Your task to perform on an android device: Open network settings Image 0: 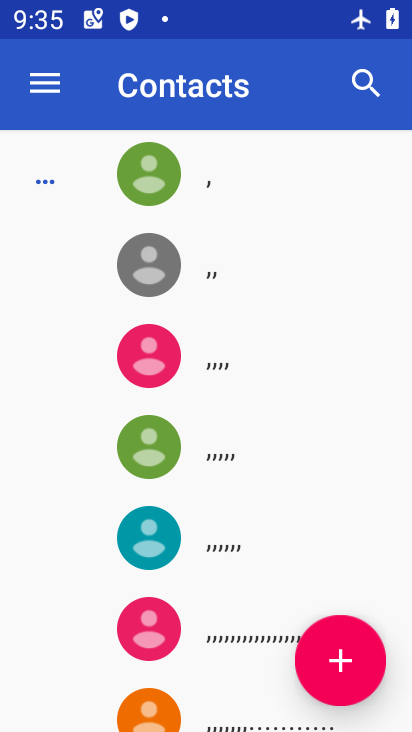
Step 0: press home button
Your task to perform on an android device: Open network settings Image 1: 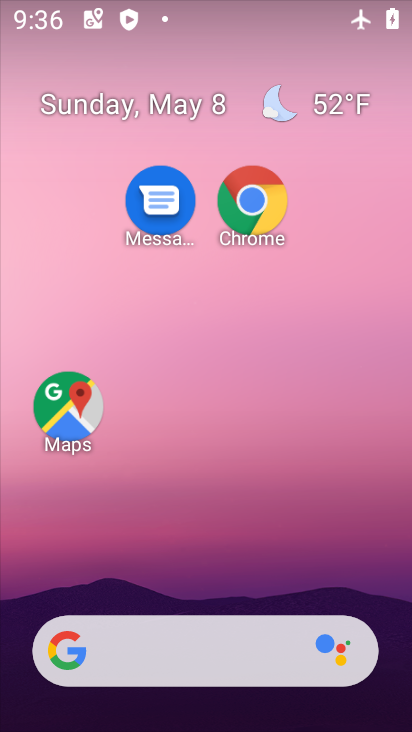
Step 1: drag from (249, 617) to (225, 8)
Your task to perform on an android device: Open network settings Image 2: 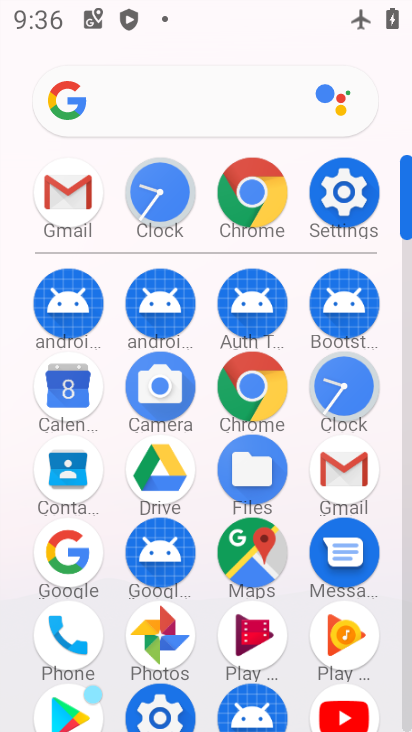
Step 2: click (341, 166)
Your task to perform on an android device: Open network settings Image 3: 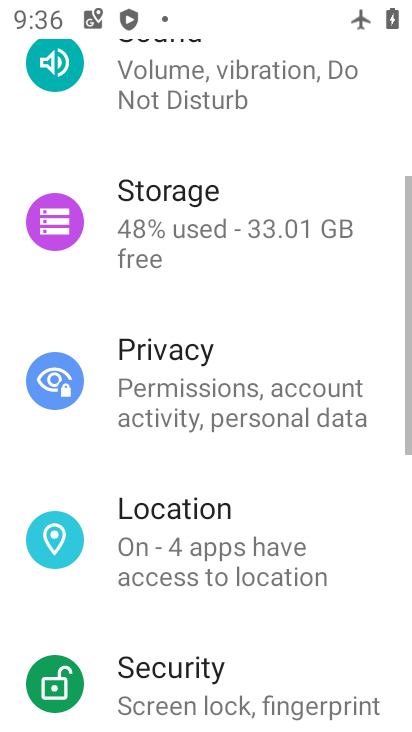
Step 3: drag from (273, 183) to (240, 700)
Your task to perform on an android device: Open network settings Image 4: 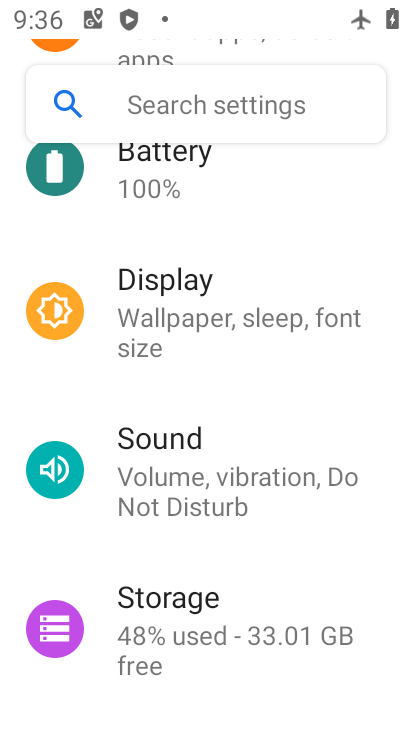
Step 4: drag from (259, 232) to (277, 675)
Your task to perform on an android device: Open network settings Image 5: 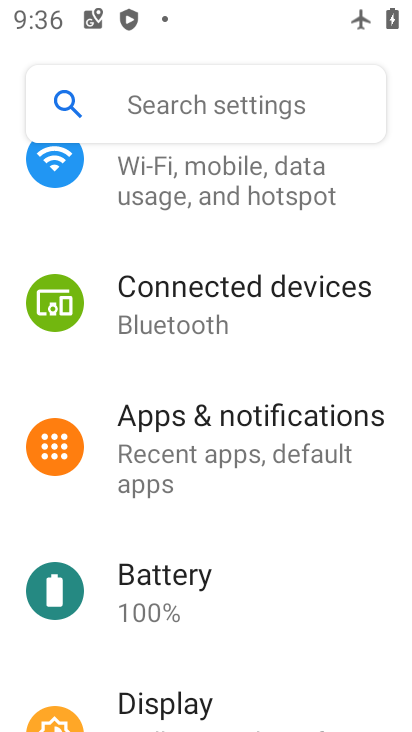
Step 5: click (224, 215)
Your task to perform on an android device: Open network settings Image 6: 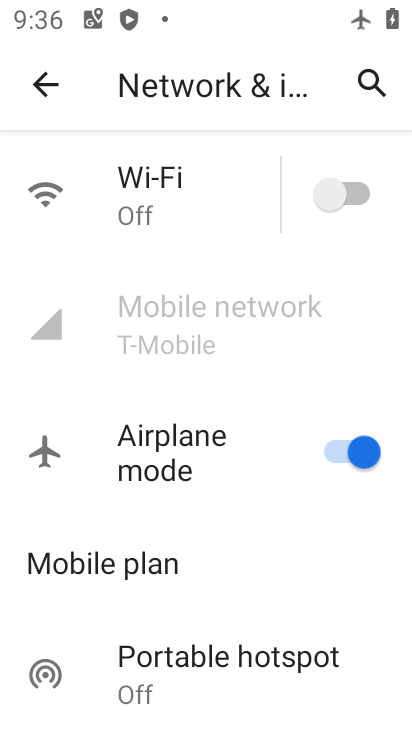
Step 6: drag from (195, 566) to (138, 70)
Your task to perform on an android device: Open network settings Image 7: 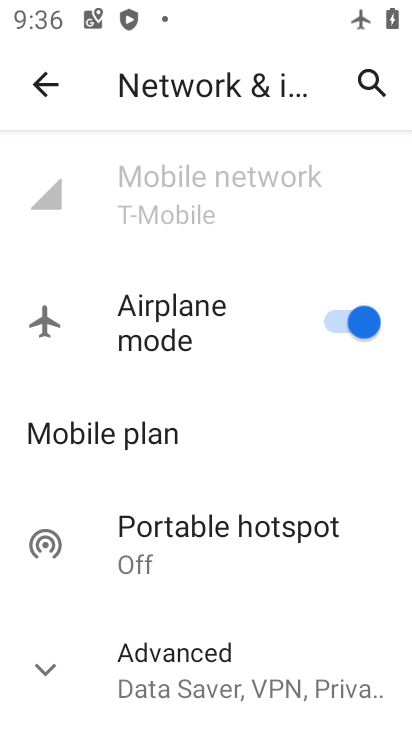
Step 7: click (195, 677)
Your task to perform on an android device: Open network settings Image 8: 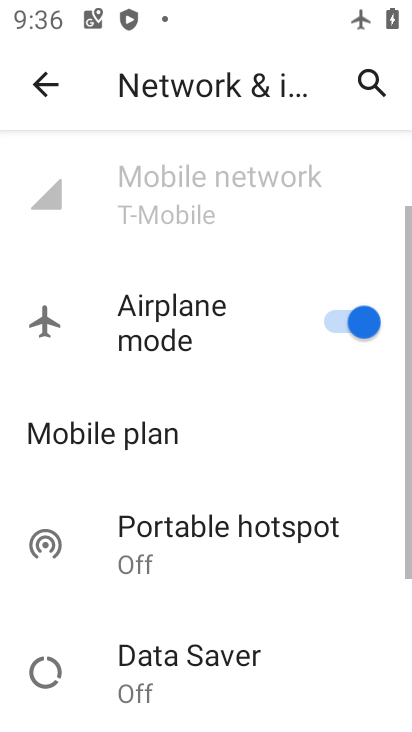
Step 8: task complete